Your task to perform on an android device: Open the camera Image 0: 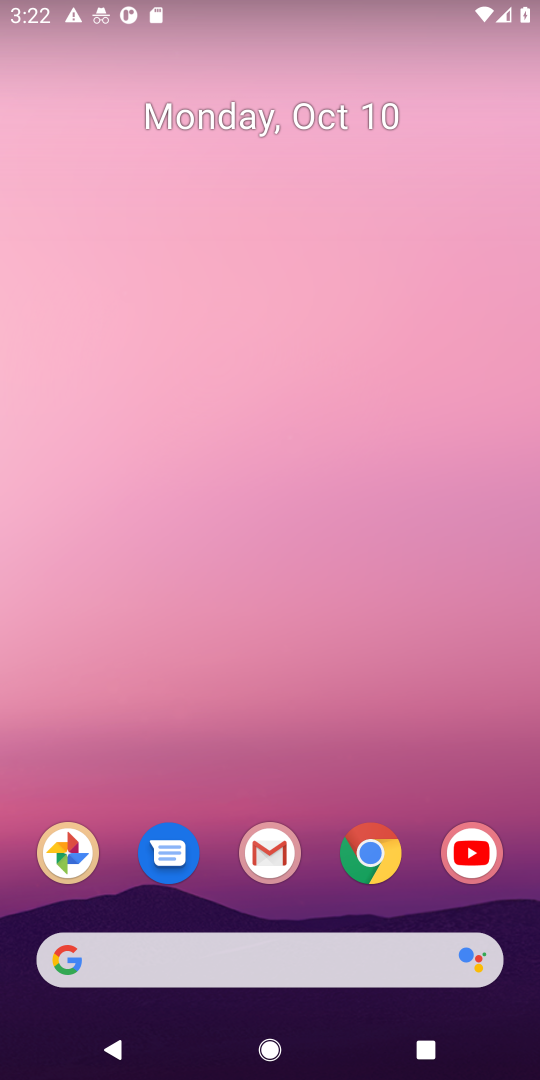
Step 0: drag from (274, 897) to (361, 153)
Your task to perform on an android device: Open the camera Image 1: 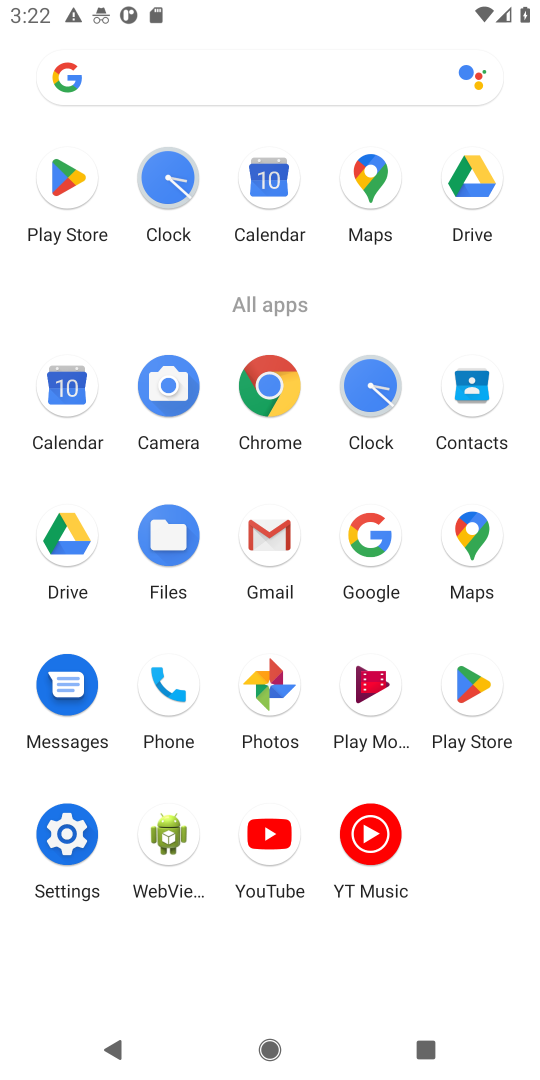
Step 1: click (164, 389)
Your task to perform on an android device: Open the camera Image 2: 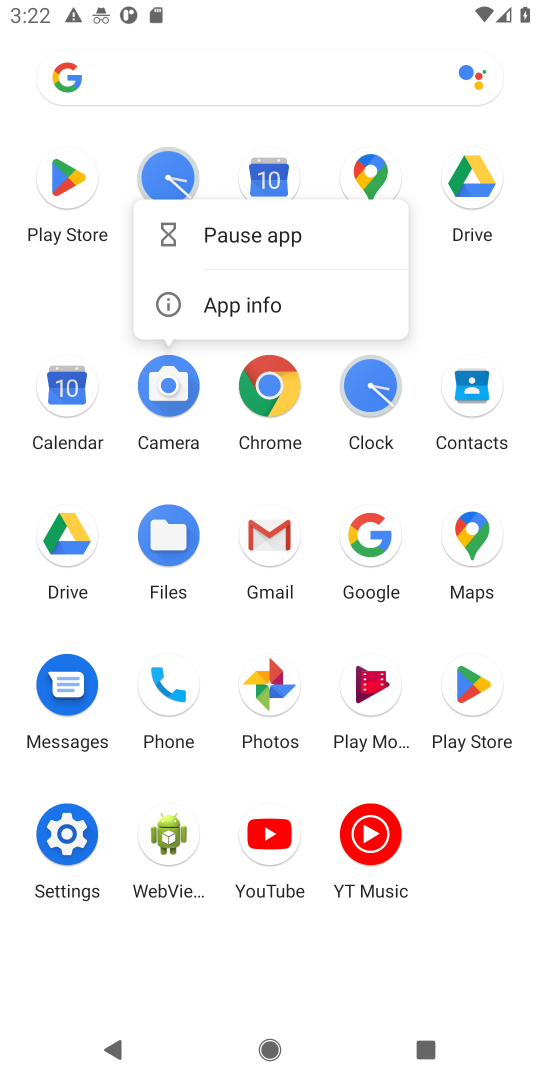
Step 2: click (156, 427)
Your task to perform on an android device: Open the camera Image 3: 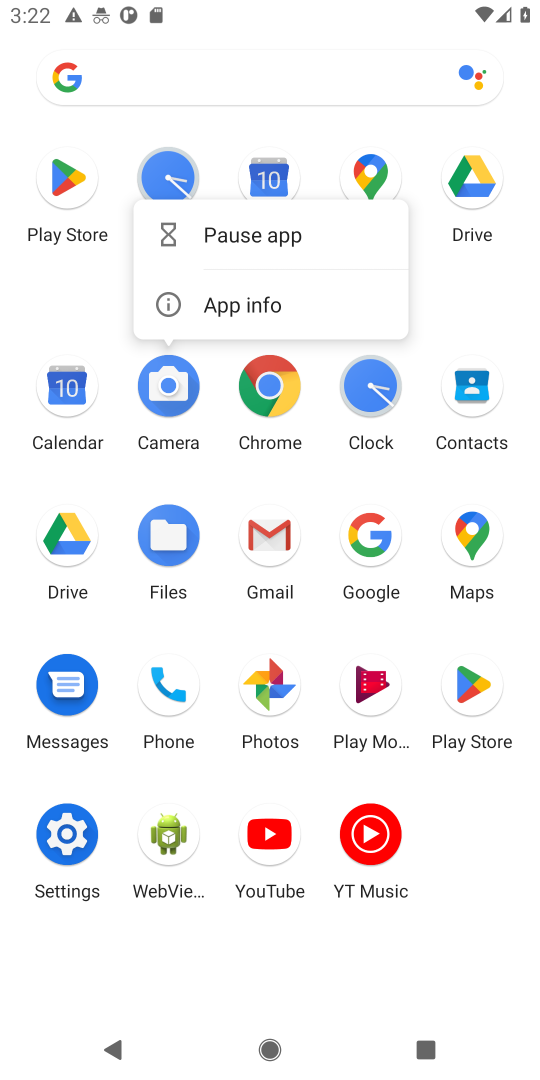
Step 3: click (162, 408)
Your task to perform on an android device: Open the camera Image 4: 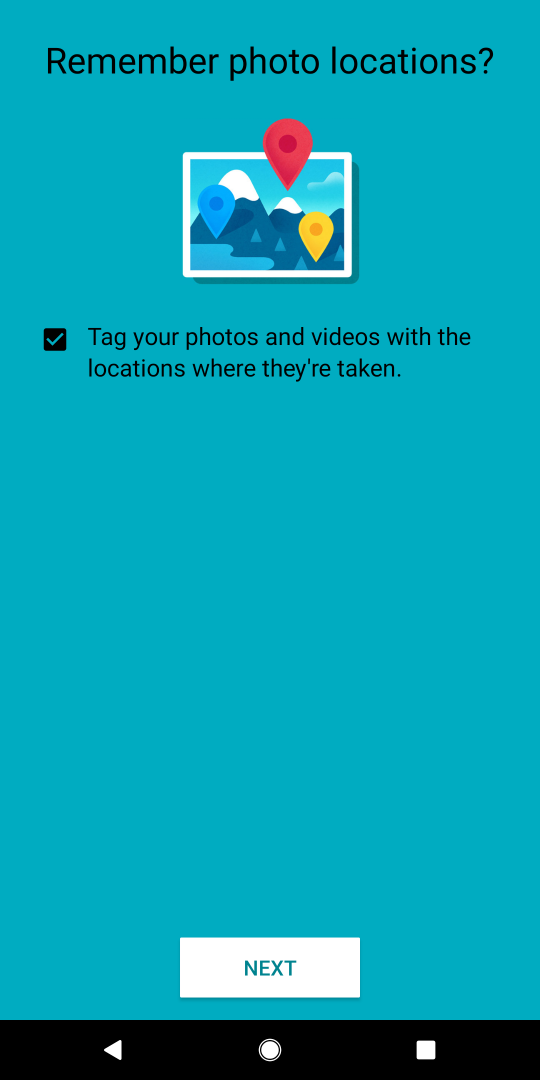
Step 4: click (272, 974)
Your task to perform on an android device: Open the camera Image 5: 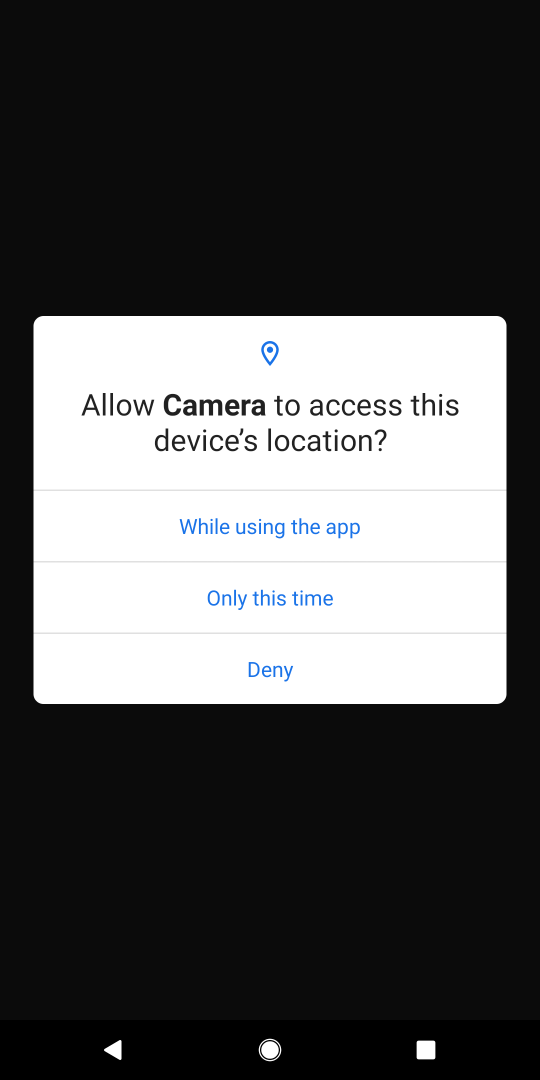
Step 5: click (239, 545)
Your task to perform on an android device: Open the camera Image 6: 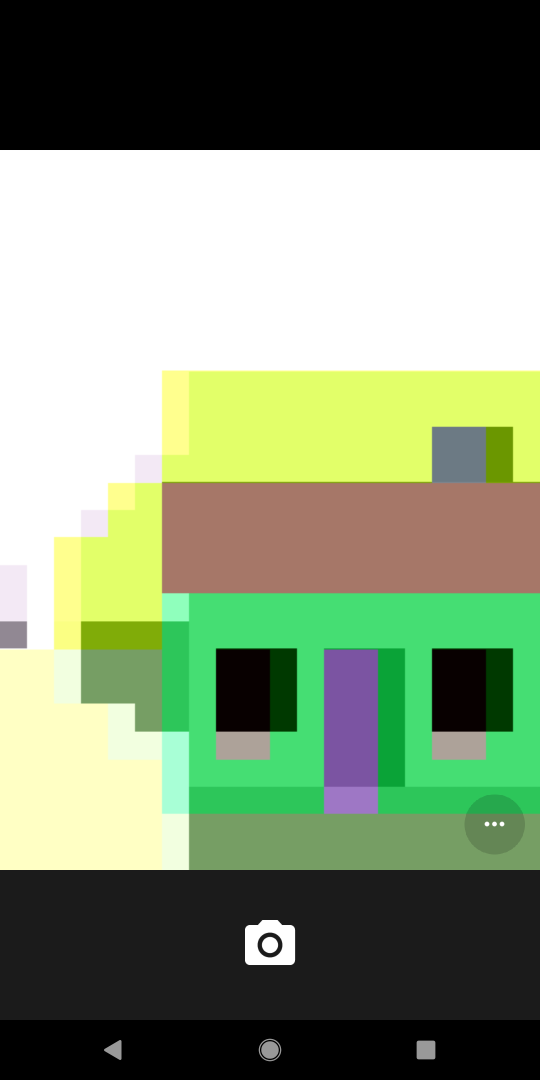
Step 6: click (520, 837)
Your task to perform on an android device: Open the camera Image 7: 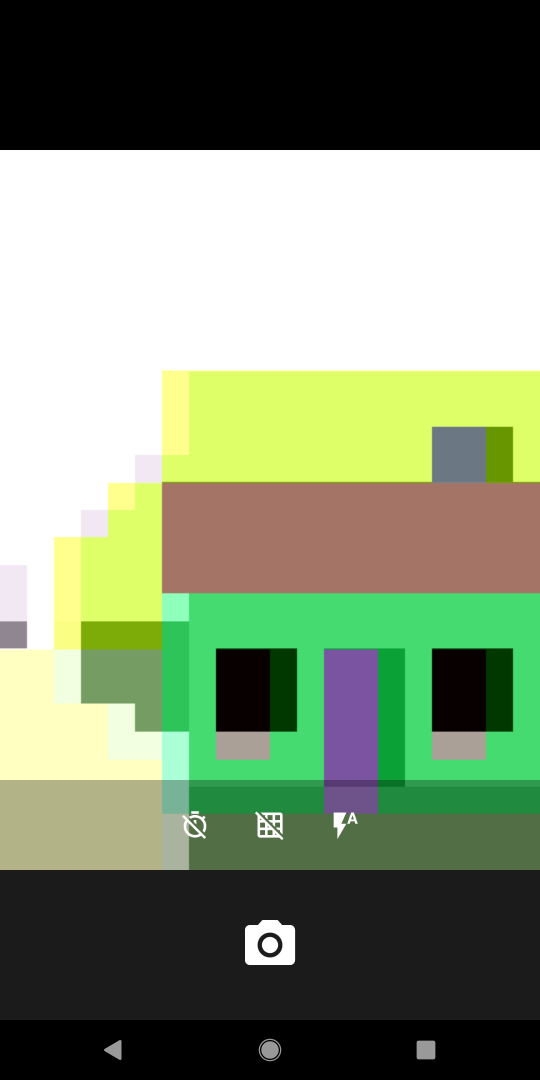
Step 7: click (246, 816)
Your task to perform on an android device: Open the camera Image 8: 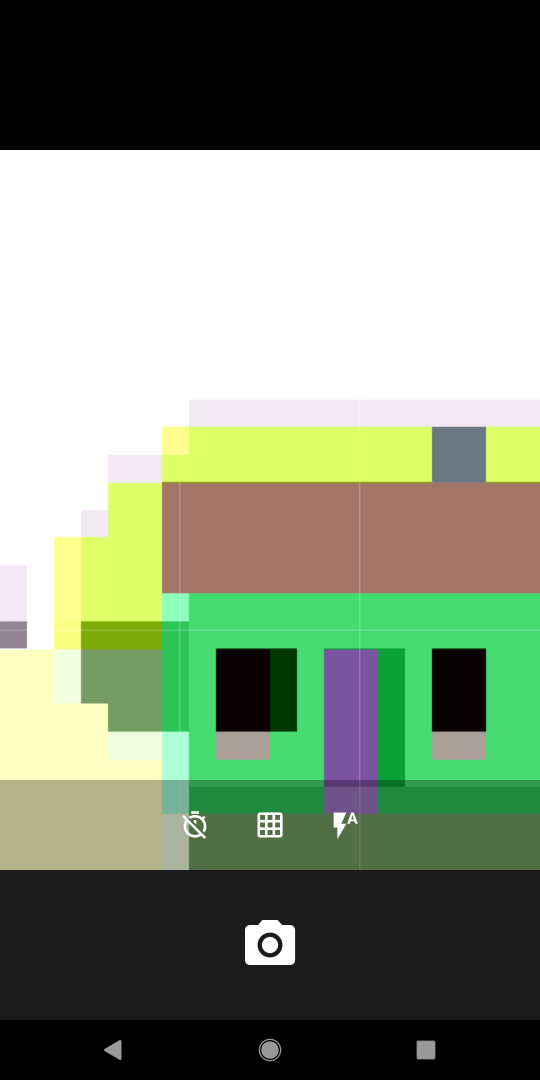
Step 8: click (341, 811)
Your task to perform on an android device: Open the camera Image 9: 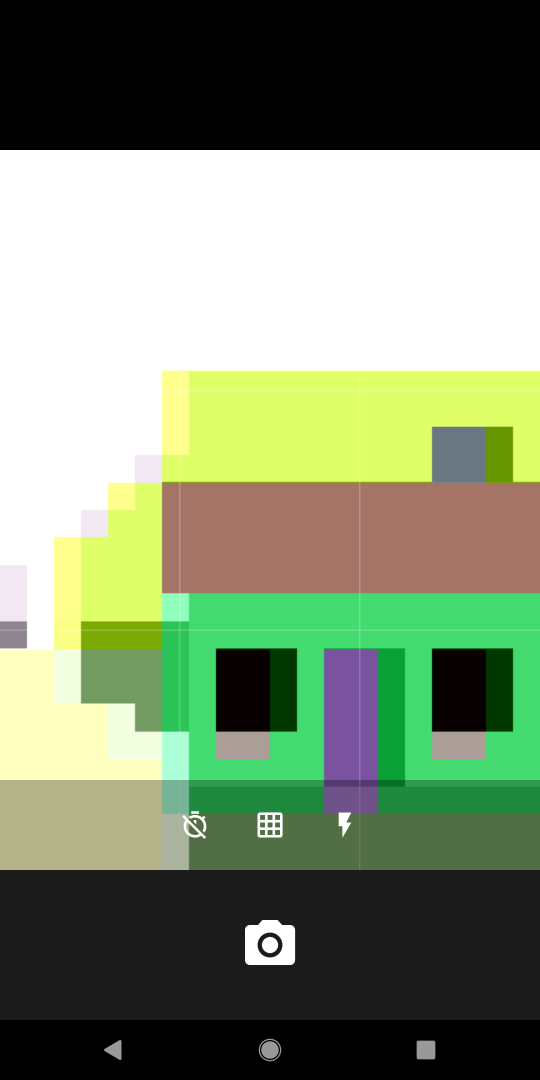
Step 9: drag from (186, 922) to (246, 543)
Your task to perform on an android device: Open the camera Image 10: 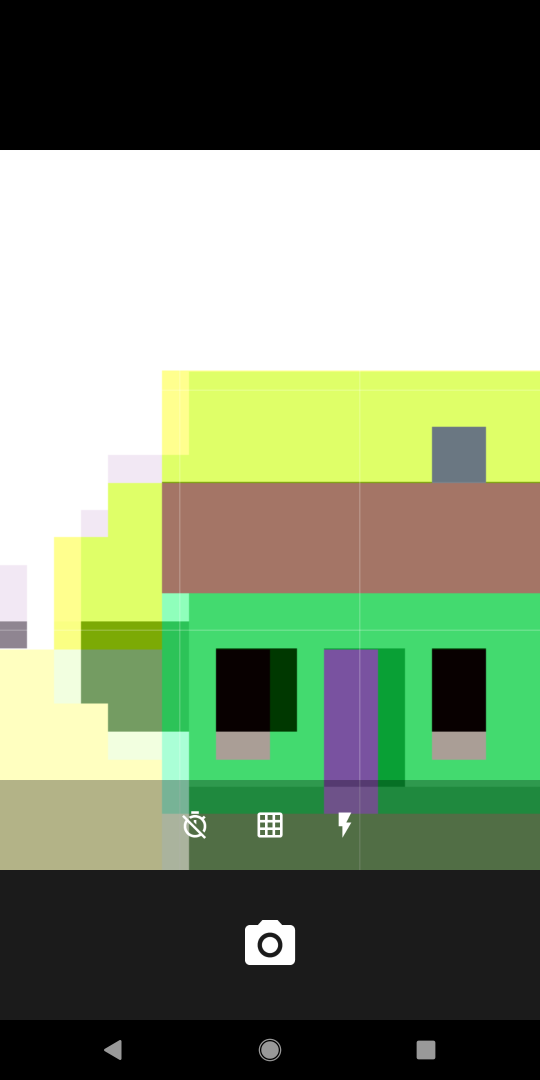
Step 10: drag from (177, 543) to (490, 548)
Your task to perform on an android device: Open the camera Image 11: 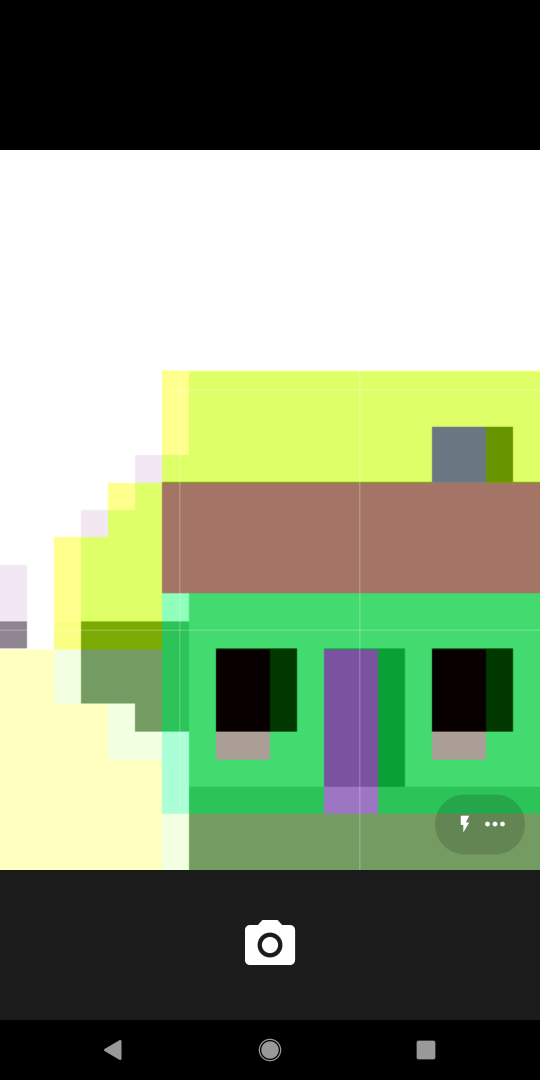
Step 11: drag from (72, 548) to (402, 553)
Your task to perform on an android device: Open the camera Image 12: 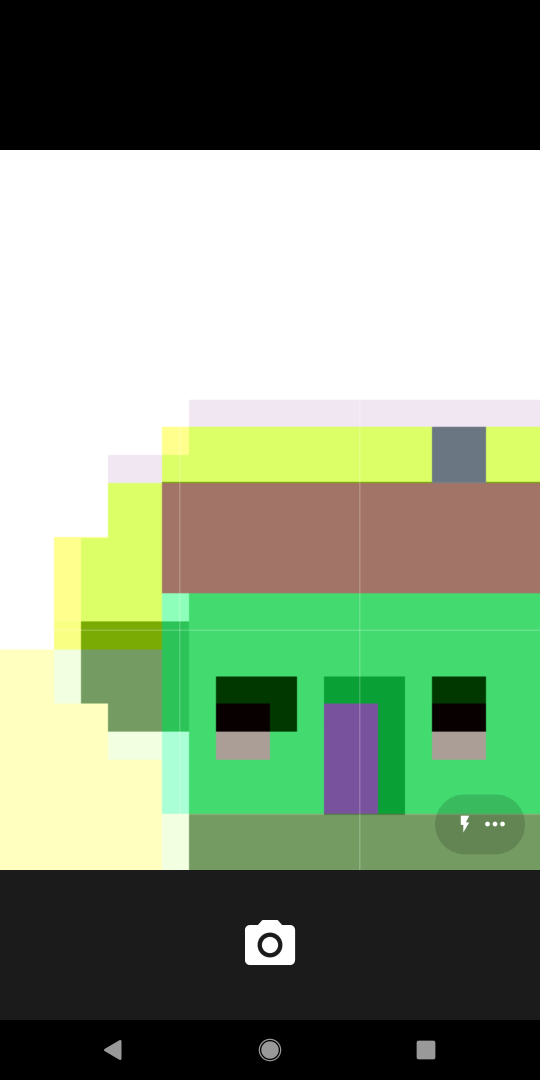
Step 12: click (266, 937)
Your task to perform on an android device: Open the camera Image 13: 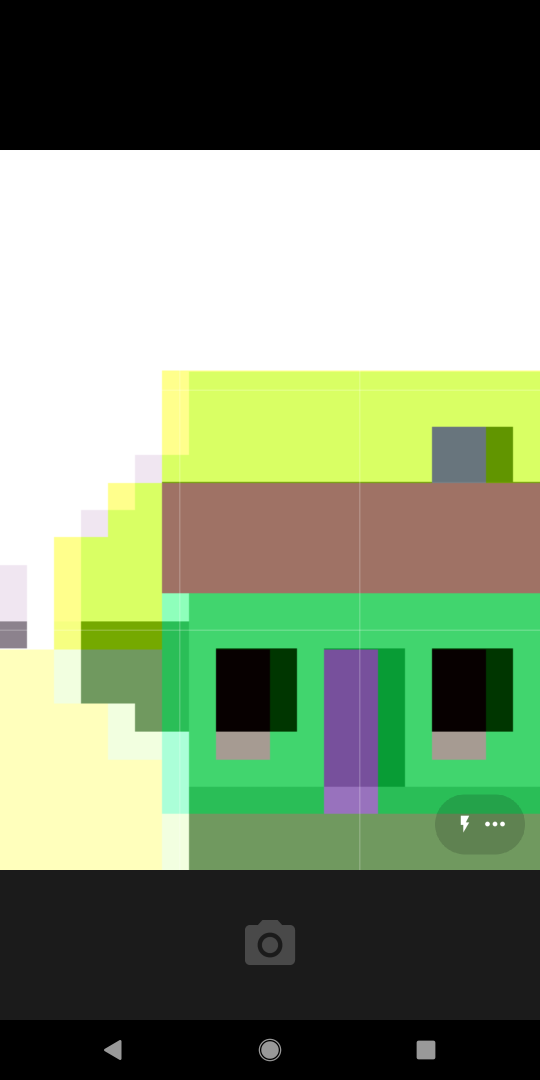
Step 13: drag from (365, 923) to (364, 113)
Your task to perform on an android device: Open the camera Image 14: 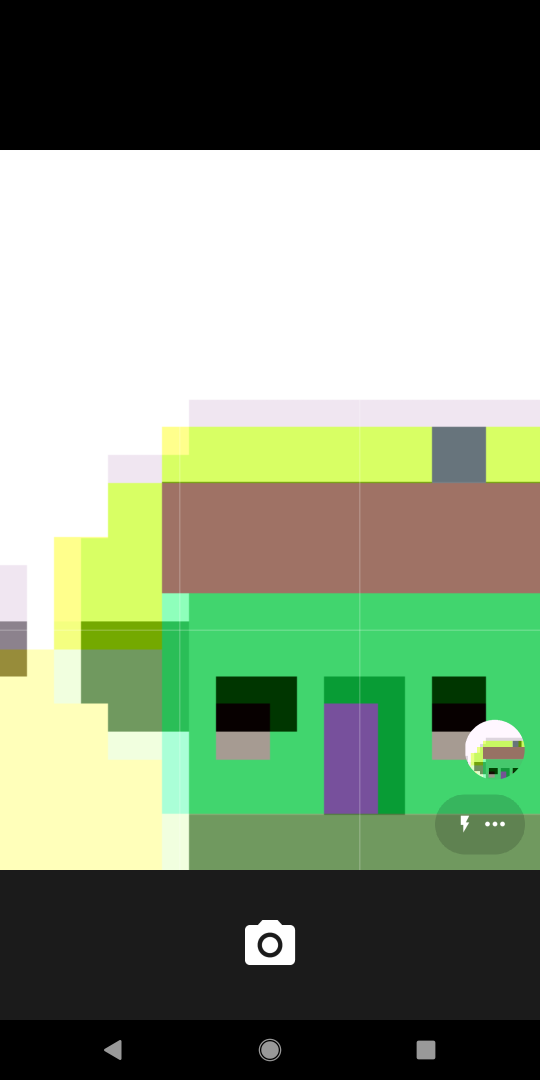
Step 14: drag from (27, 587) to (427, 578)
Your task to perform on an android device: Open the camera Image 15: 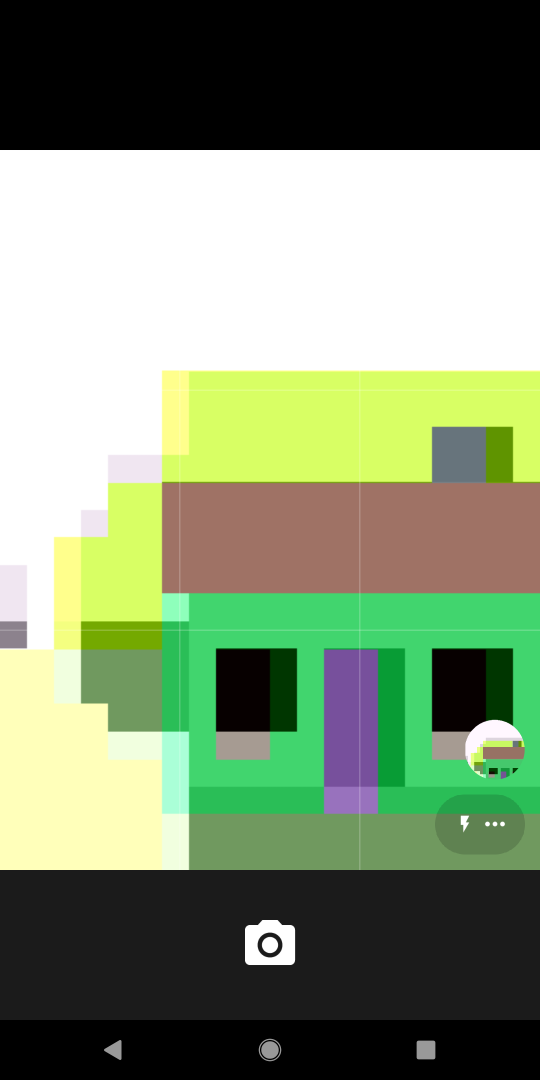
Step 15: drag from (173, 587) to (470, 563)
Your task to perform on an android device: Open the camera Image 16: 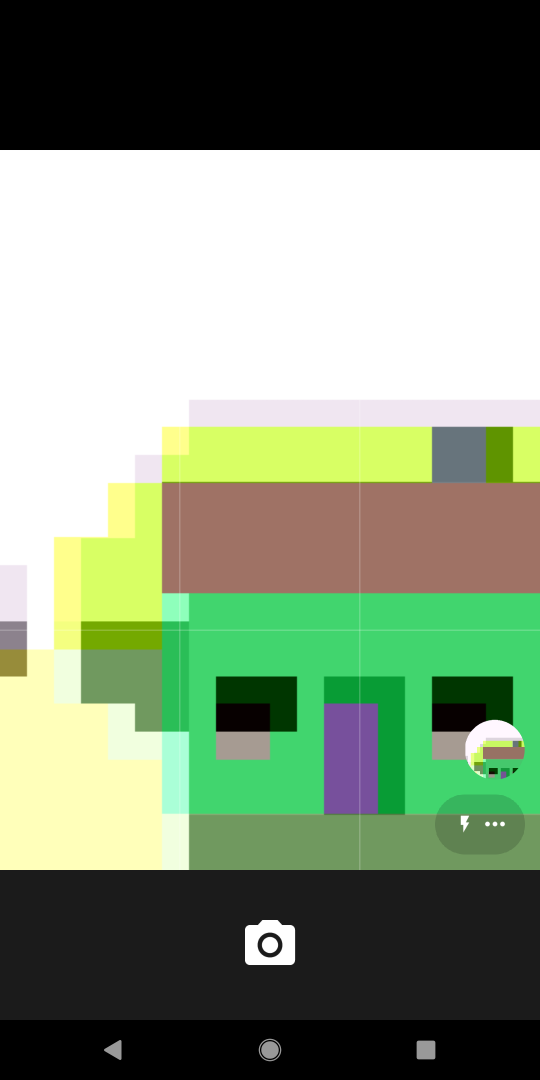
Step 16: click (489, 743)
Your task to perform on an android device: Open the camera Image 17: 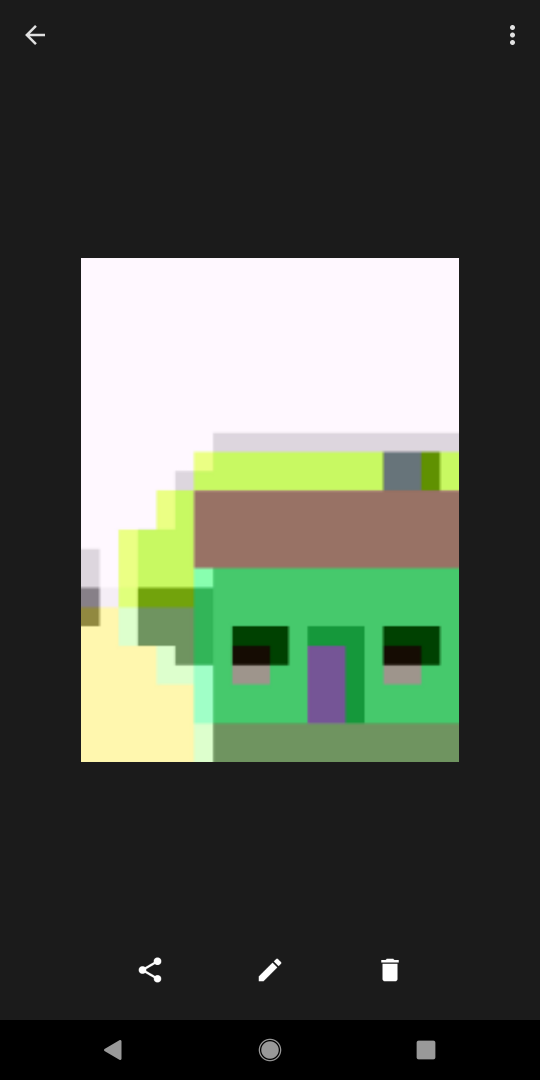
Step 17: drag from (421, 697) to (198, 676)
Your task to perform on an android device: Open the camera Image 18: 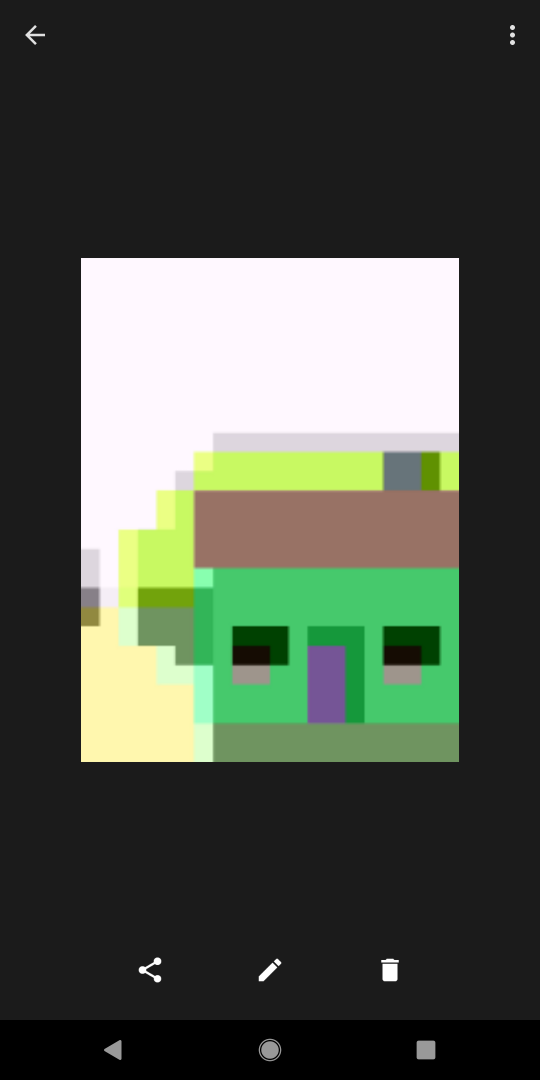
Step 18: click (384, 976)
Your task to perform on an android device: Open the camera Image 19: 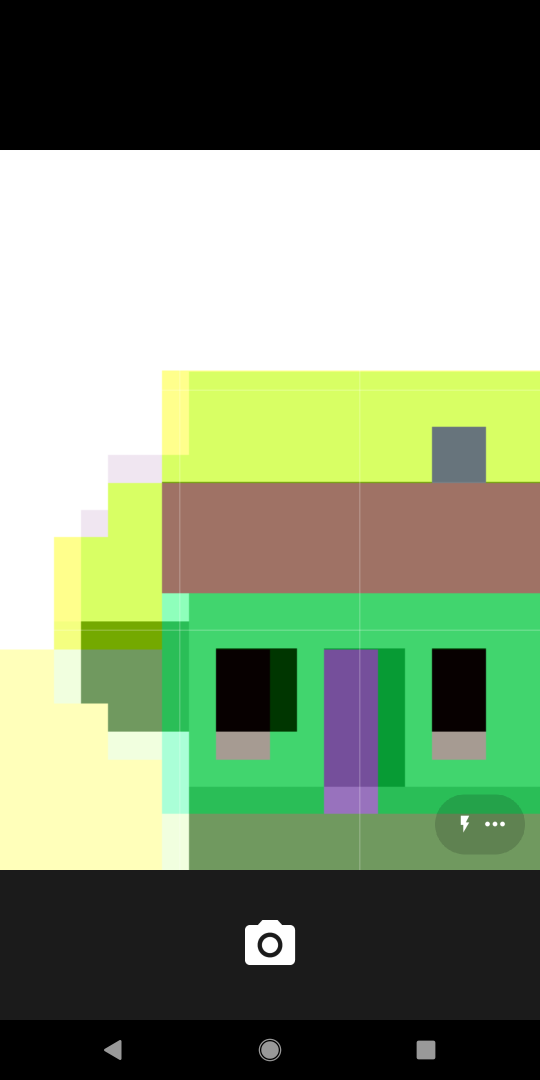
Step 19: drag from (379, 597) to (384, 370)
Your task to perform on an android device: Open the camera Image 20: 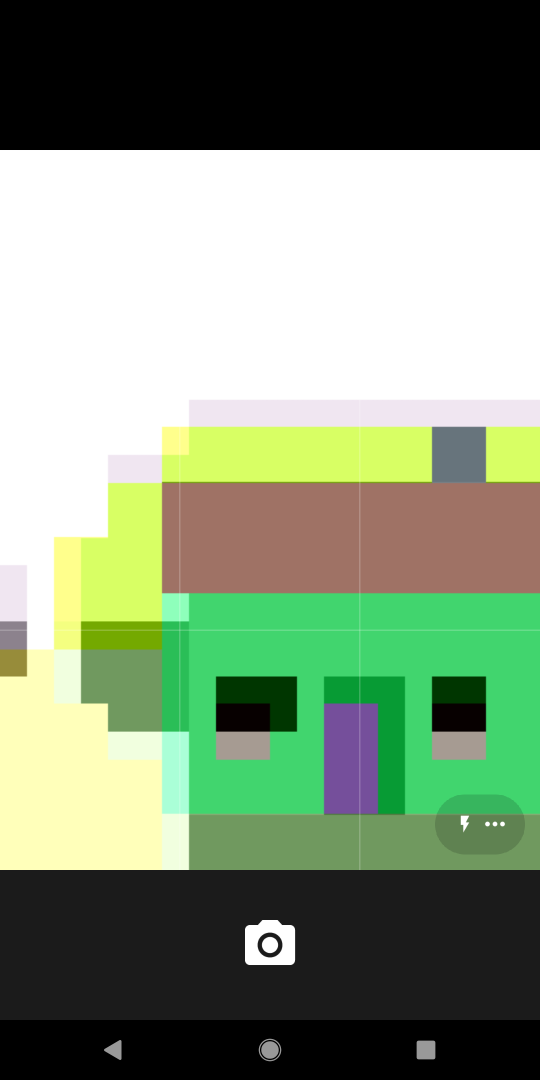
Step 20: drag from (305, 312) to (240, 869)
Your task to perform on an android device: Open the camera Image 21: 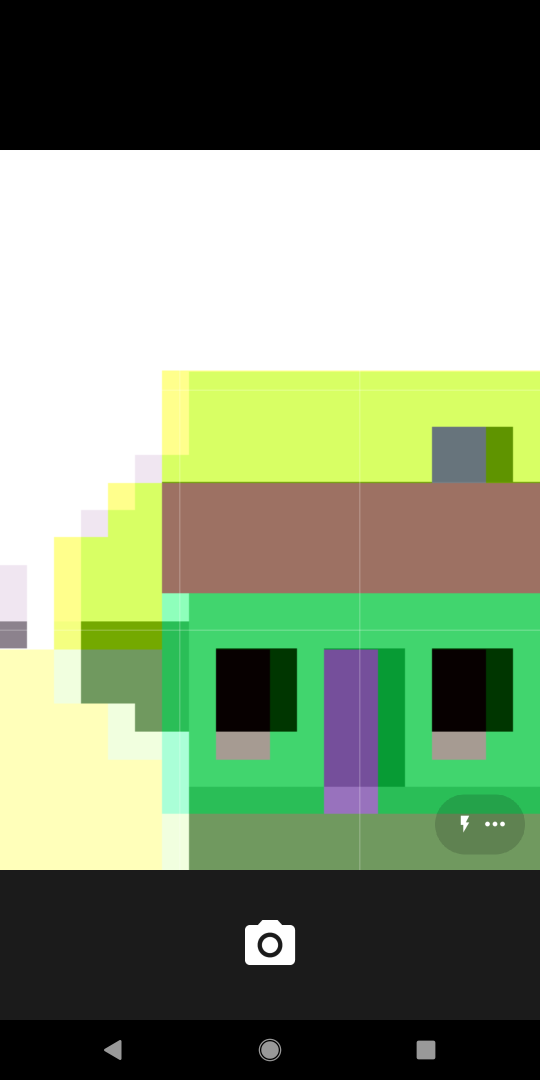
Step 21: click (457, 818)
Your task to perform on an android device: Open the camera Image 22: 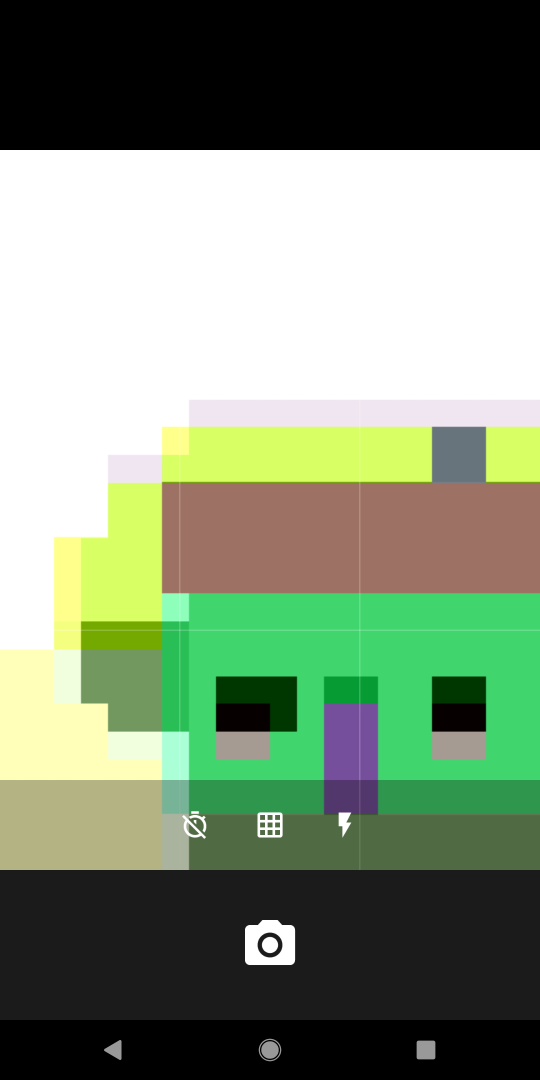
Step 22: click (259, 821)
Your task to perform on an android device: Open the camera Image 23: 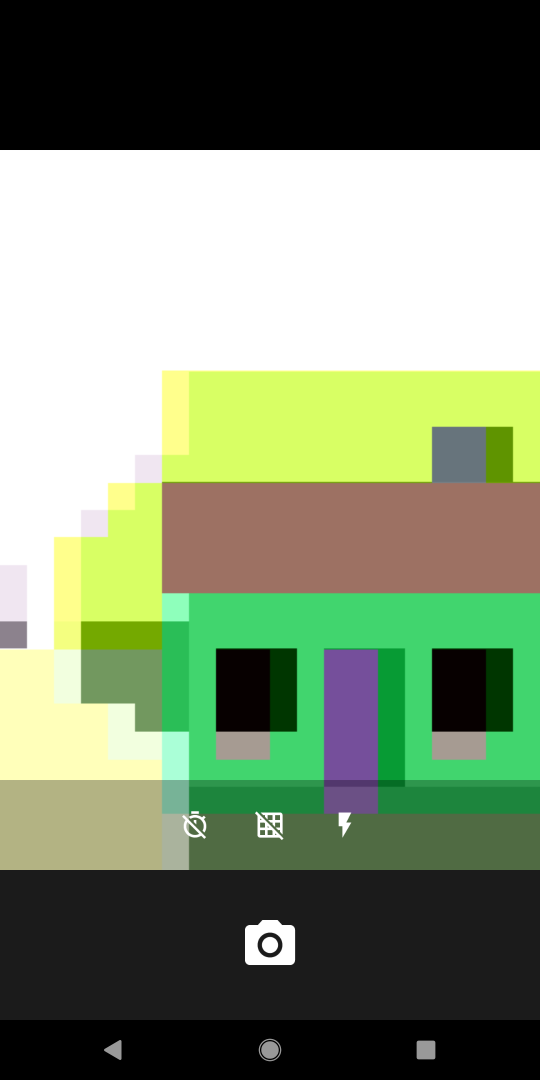
Step 23: click (201, 791)
Your task to perform on an android device: Open the camera Image 24: 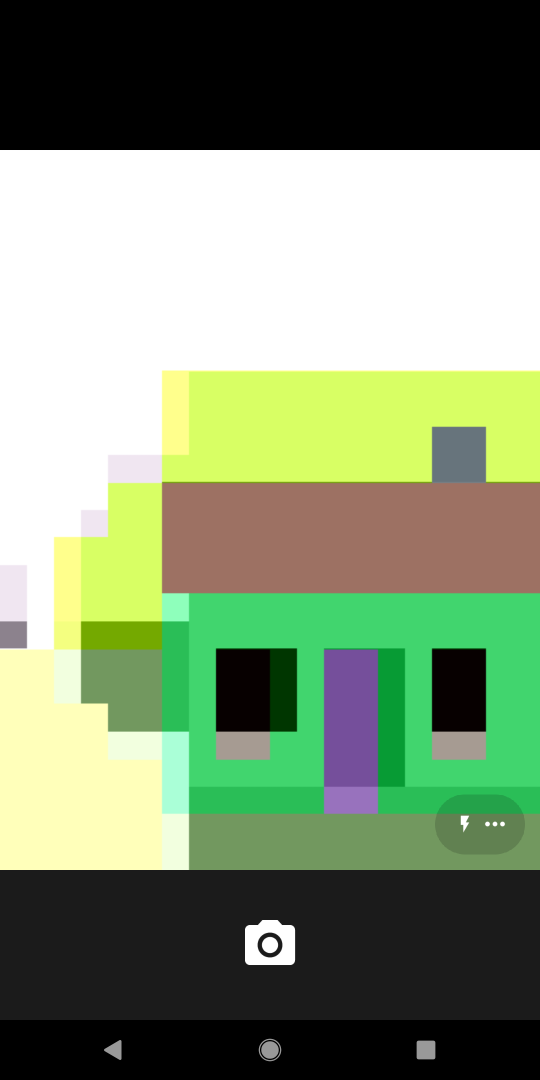
Step 24: drag from (238, 788) to (289, 392)
Your task to perform on an android device: Open the camera Image 25: 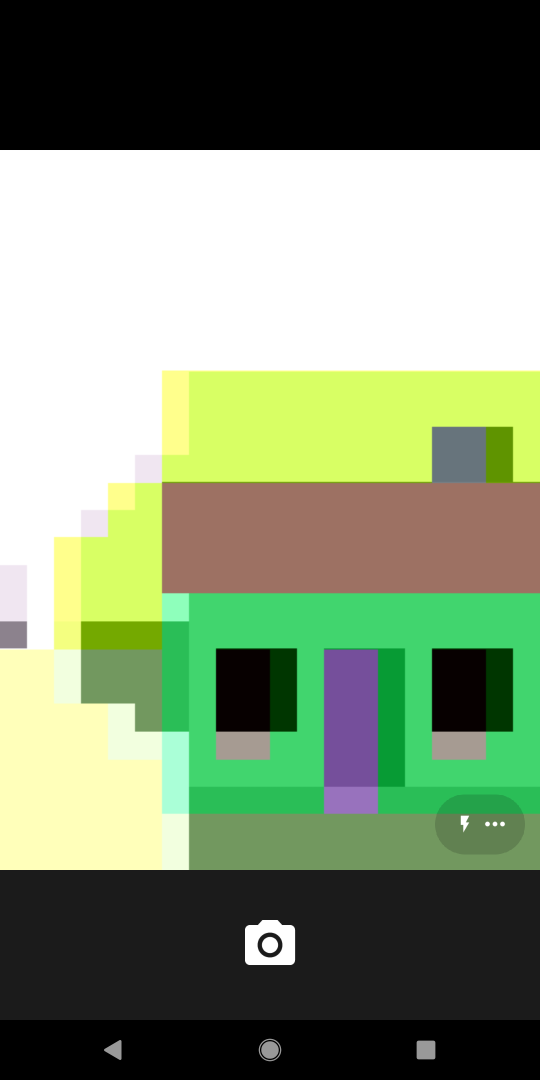
Step 25: click (314, 429)
Your task to perform on an android device: Open the camera Image 26: 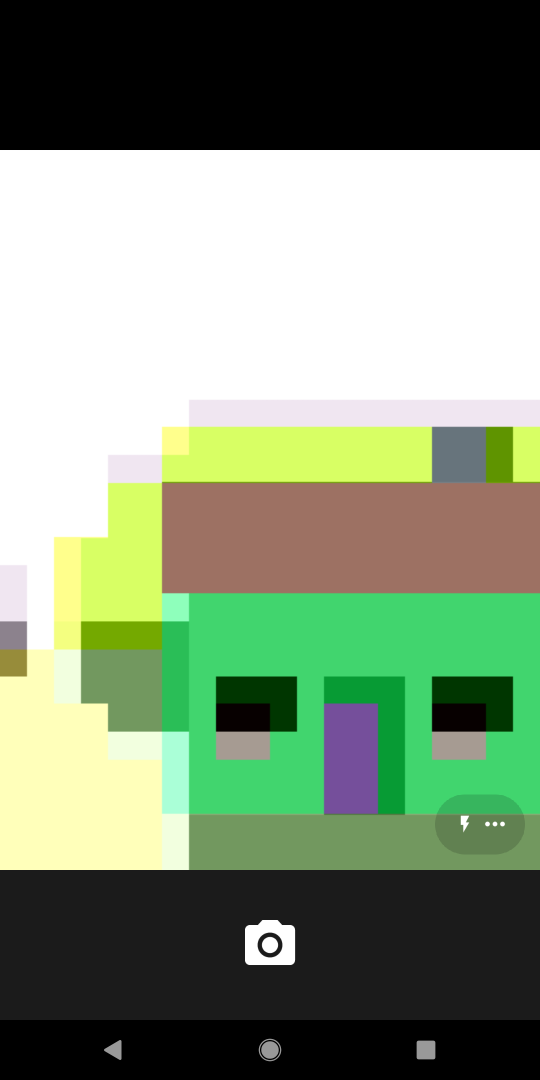
Step 26: drag from (276, 567) to (308, 504)
Your task to perform on an android device: Open the camera Image 27: 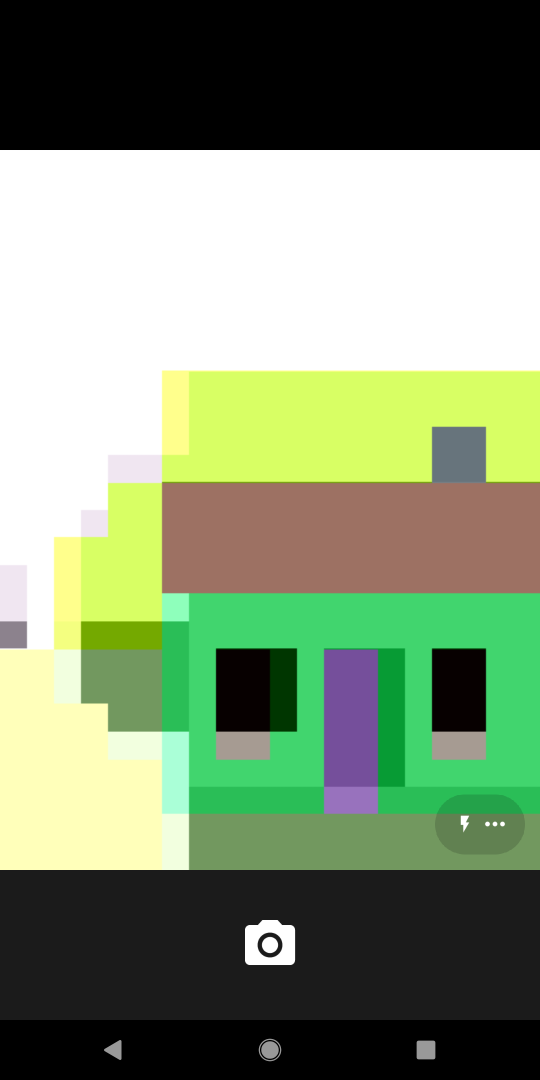
Step 27: drag from (329, 505) to (317, 590)
Your task to perform on an android device: Open the camera Image 28: 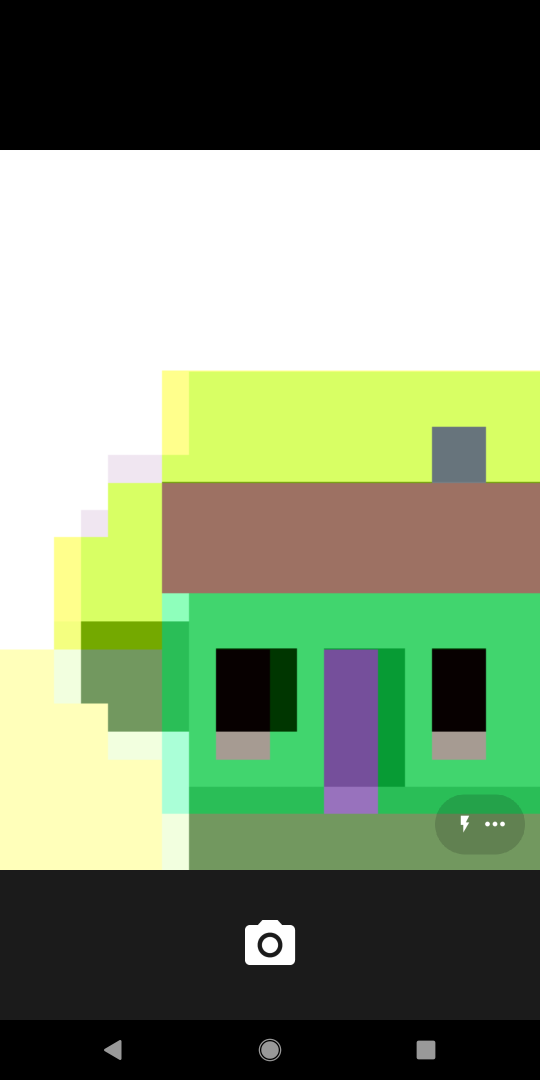
Step 28: click (344, 530)
Your task to perform on an android device: Open the camera Image 29: 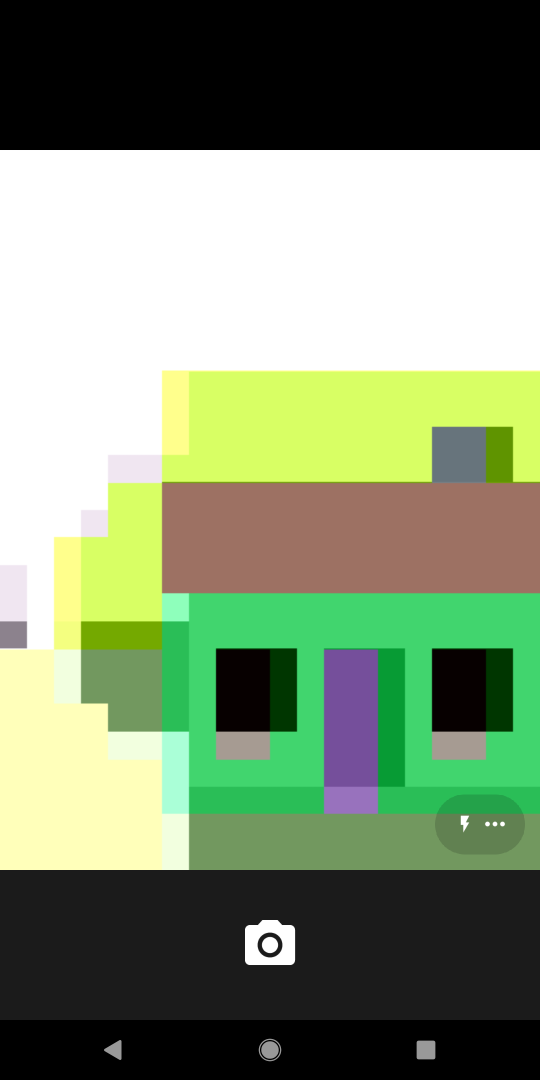
Step 29: click (346, 555)
Your task to perform on an android device: Open the camera Image 30: 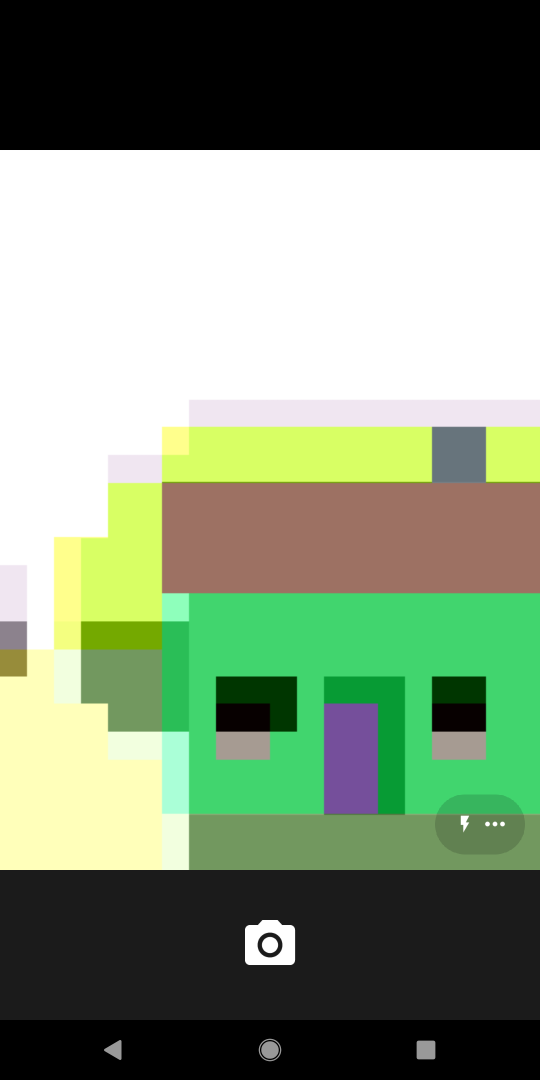
Step 30: drag from (364, 643) to (340, 493)
Your task to perform on an android device: Open the camera Image 31: 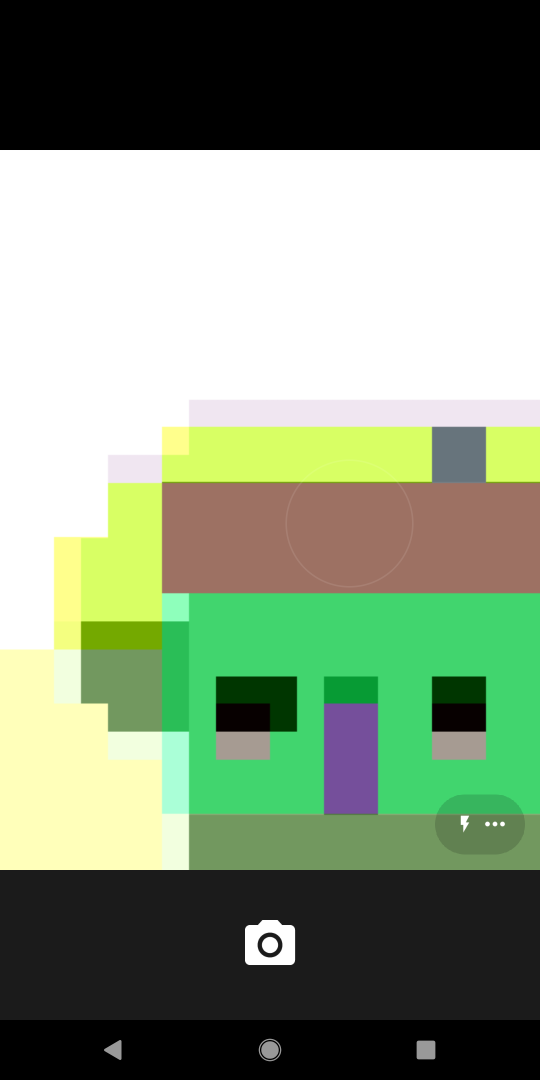
Step 31: click (346, 471)
Your task to perform on an android device: Open the camera Image 32: 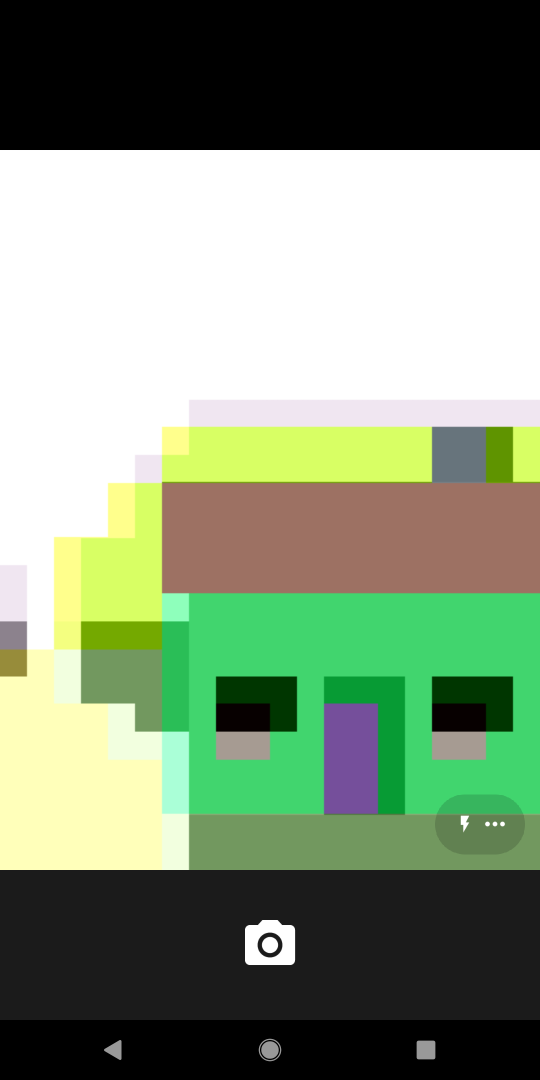
Step 32: drag from (256, 595) to (268, 866)
Your task to perform on an android device: Open the camera Image 33: 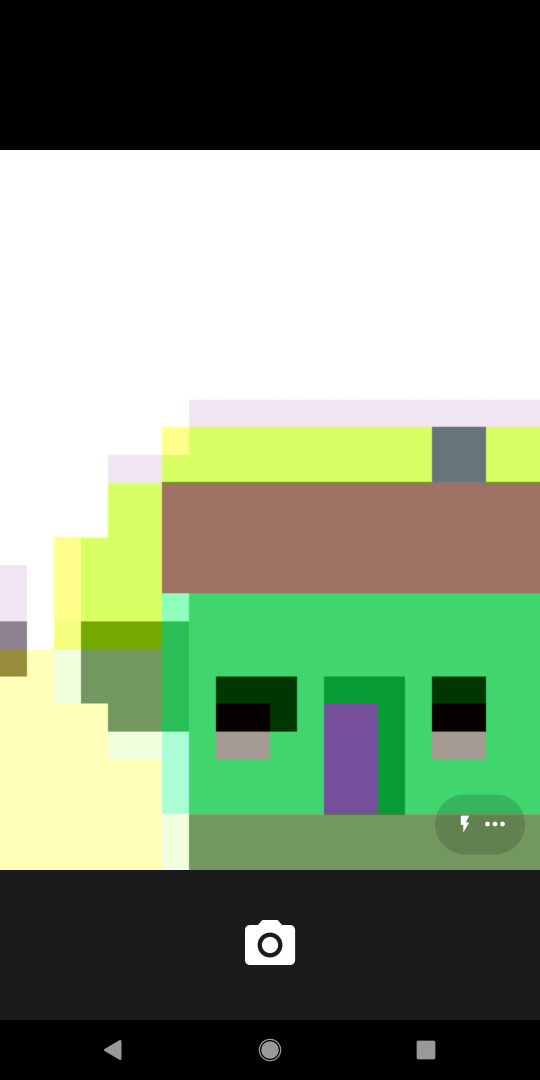
Step 33: click (472, 813)
Your task to perform on an android device: Open the camera Image 34: 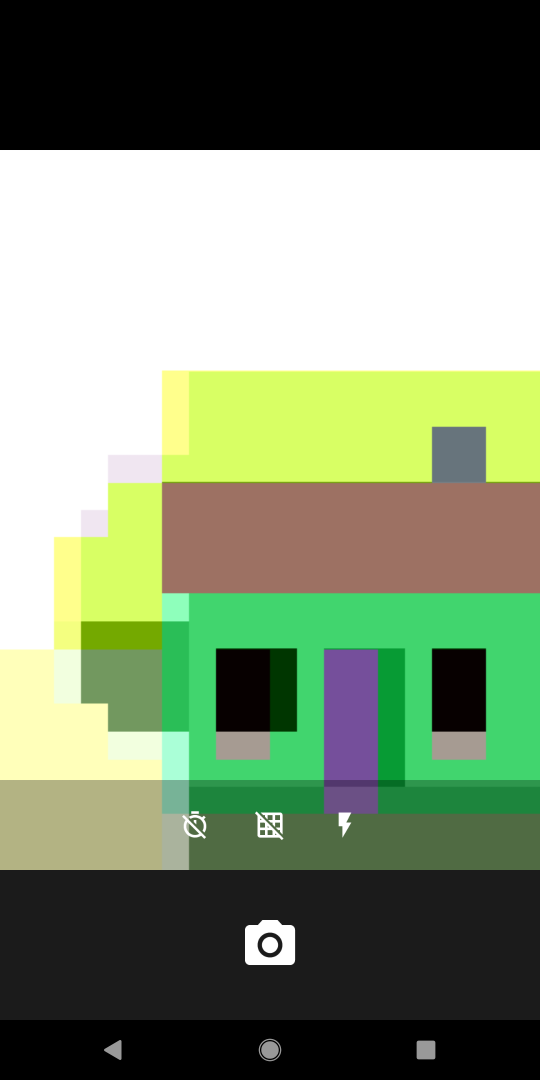
Step 34: click (456, 824)
Your task to perform on an android device: Open the camera Image 35: 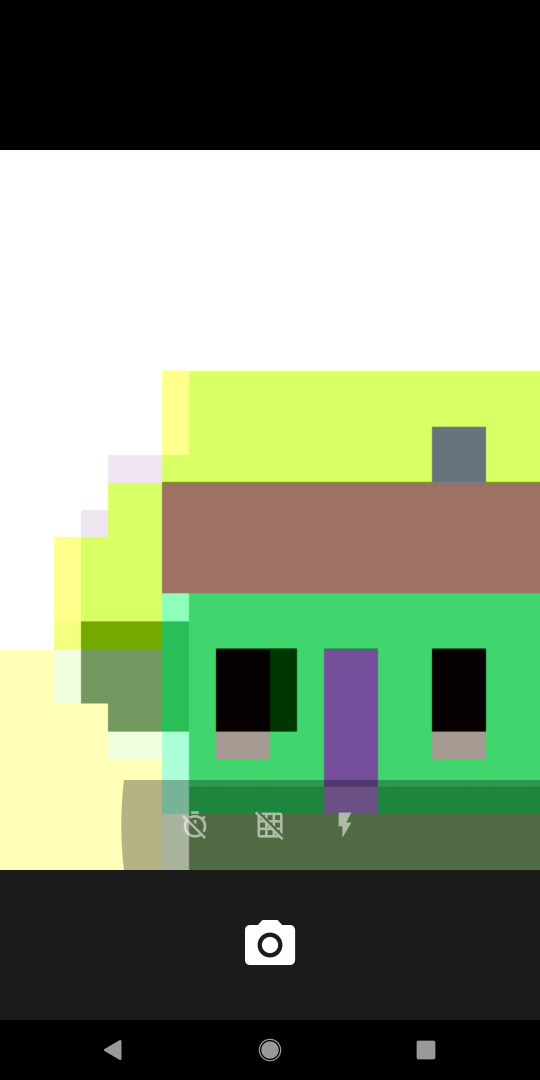
Step 35: click (371, 830)
Your task to perform on an android device: Open the camera Image 36: 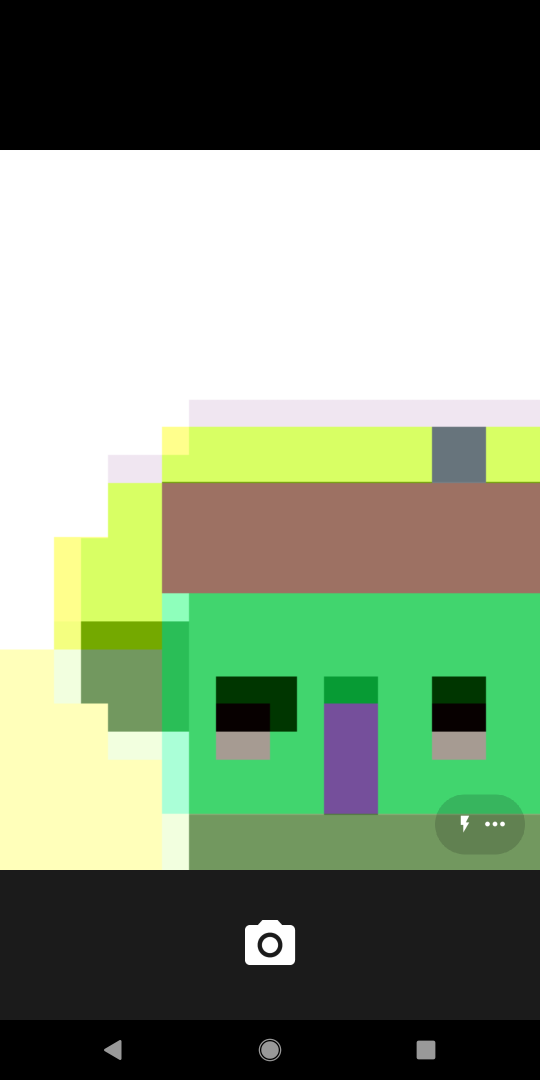
Step 36: click (520, 827)
Your task to perform on an android device: Open the camera Image 37: 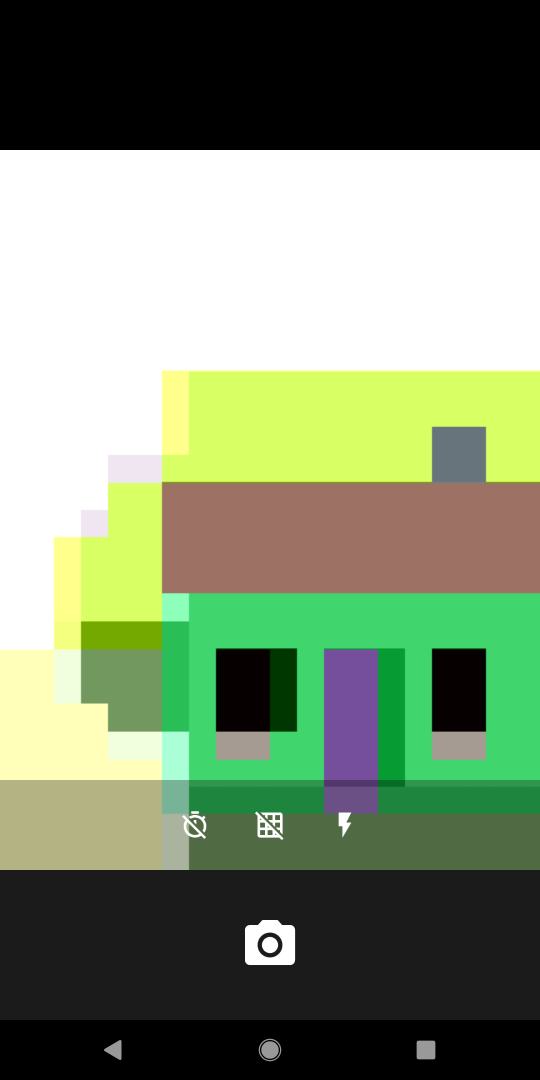
Step 37: click (188, 827)
Your task to perform on an android device: Open the camera Image 38: 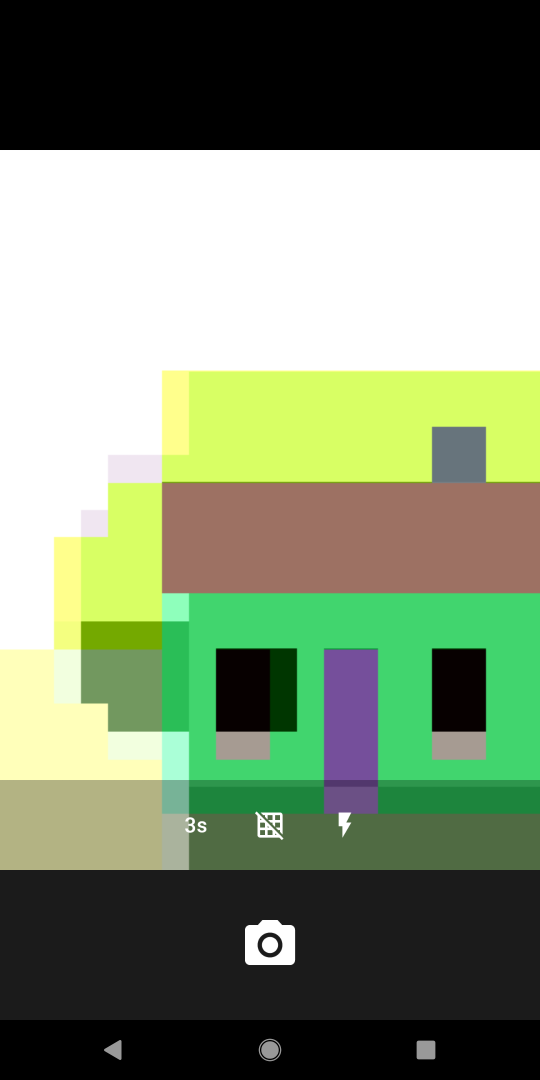
Step 38: click (188, 827)
Your task to perform on an android device: Open the camera Image 39: 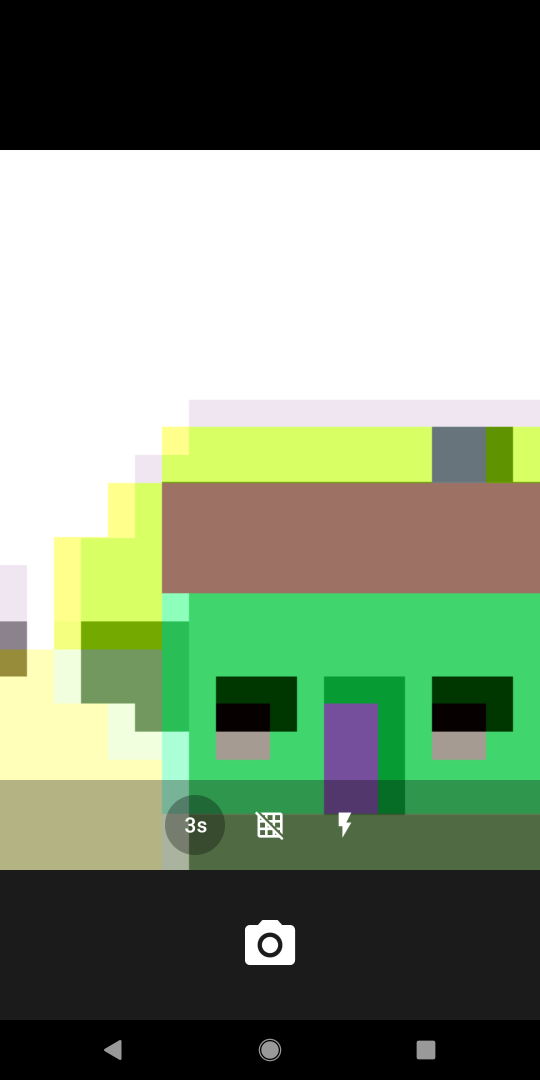
Step 39: click (188, 827)
Your task to perform on an android device: Open the camera Image 40: 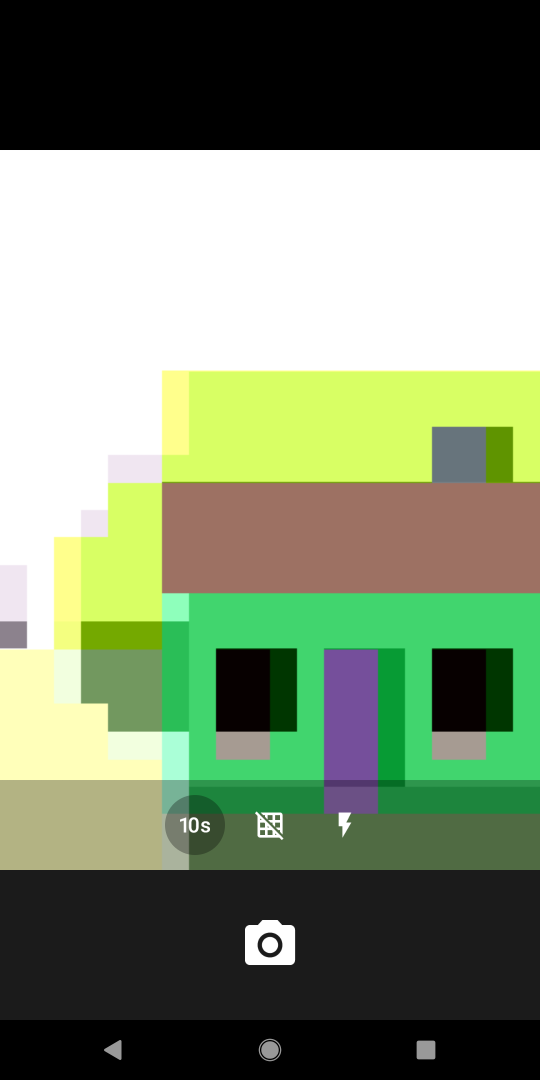
Step 40: click (203, 842)
Your task to perform on an android device: Open the camera Image 41: 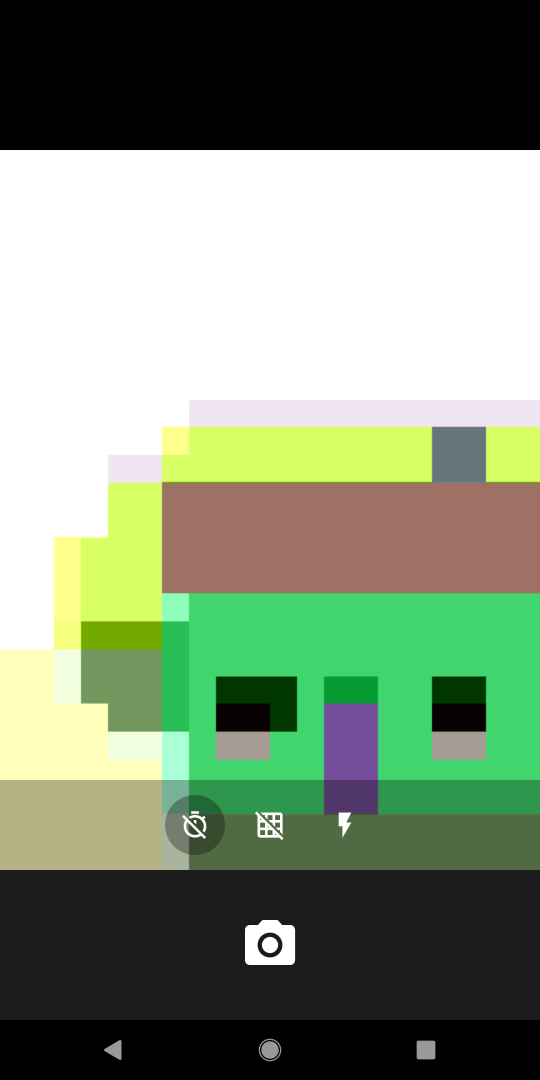
Step 41: click (203, 842)
Your task to perform on an android device: Open the camera Image 42: 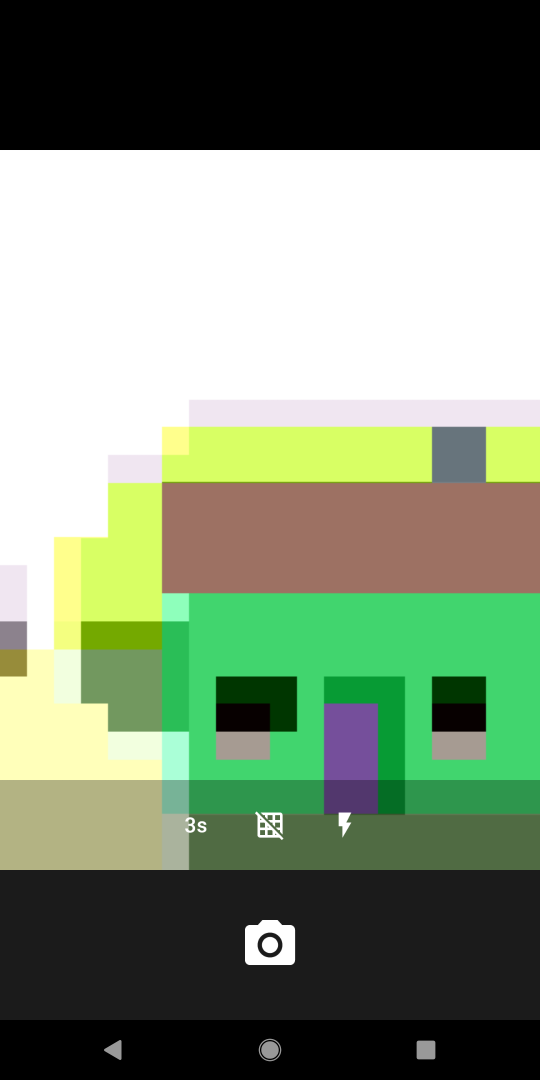
Step 42: click (203, 842)
Your task to perform on an android device: Open the camera Image 43: 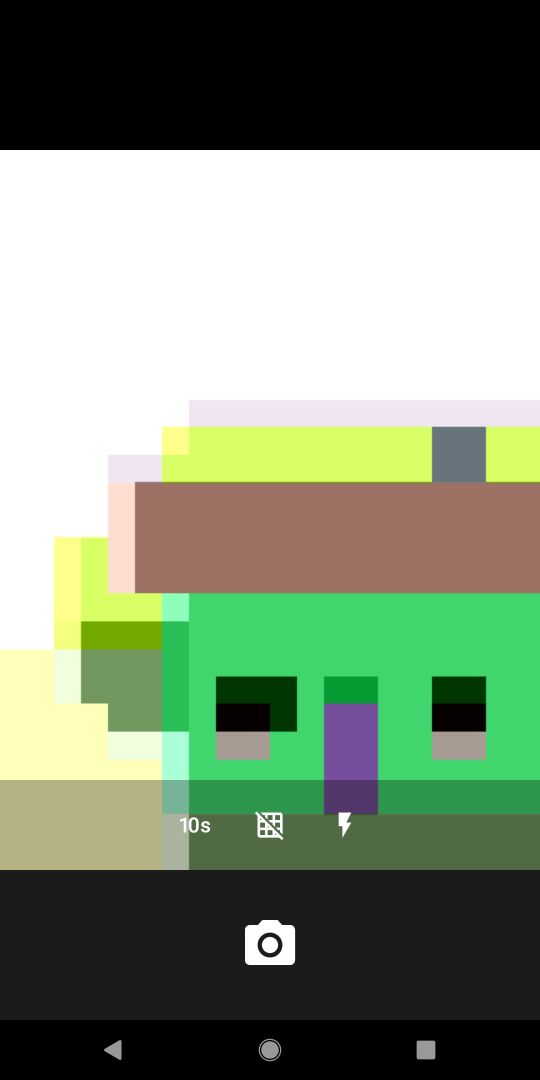
Step 43: click (203, 842)
Your task to perform on an android device: Open the camera Image 44: 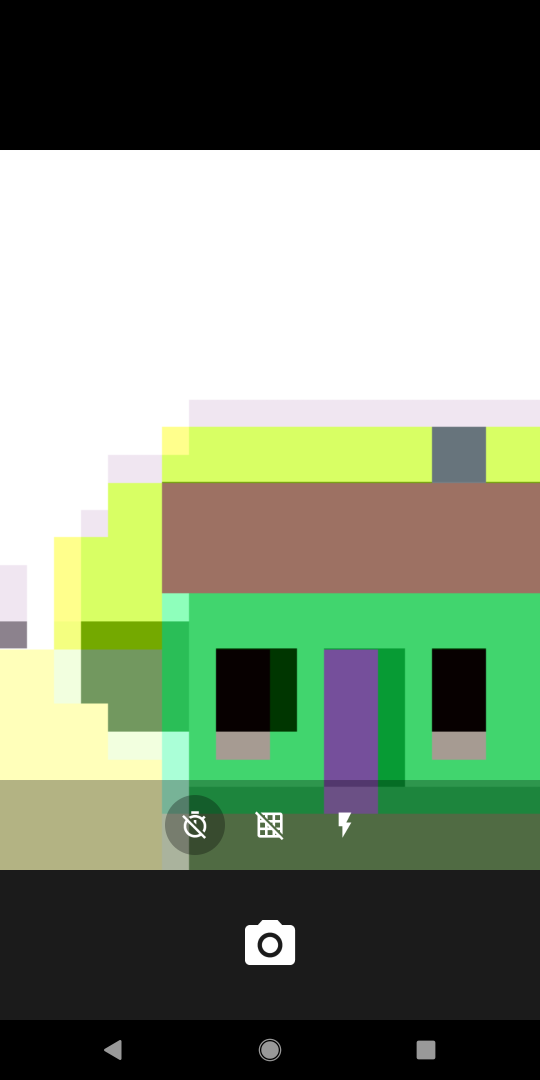
Step 44: click (203, 842)
Your task to perform on an android device: Open the camera Image 45: 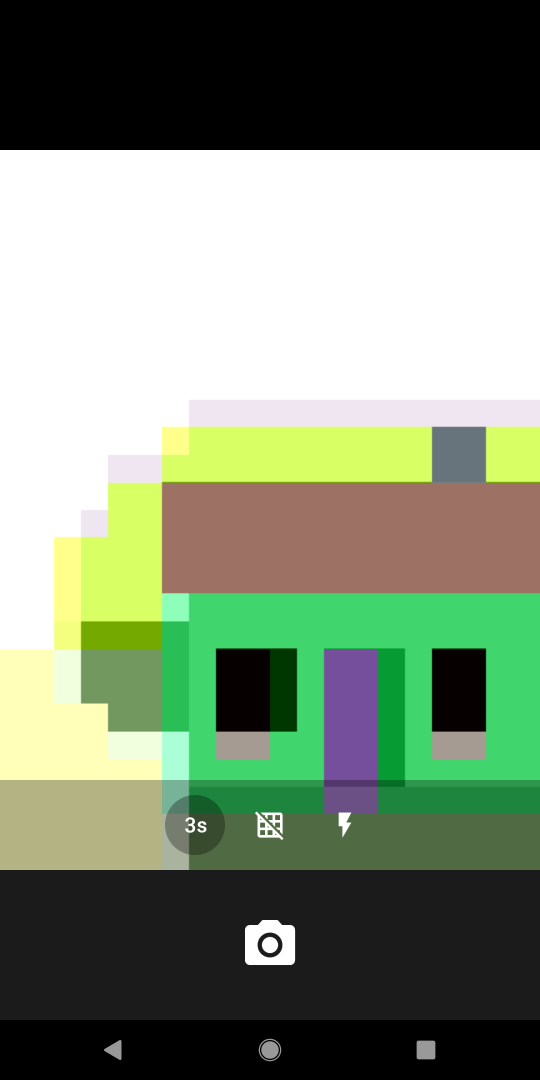
Step 45: click (203, 842)
Your task to perform on an android device: Open the camera Image 46: 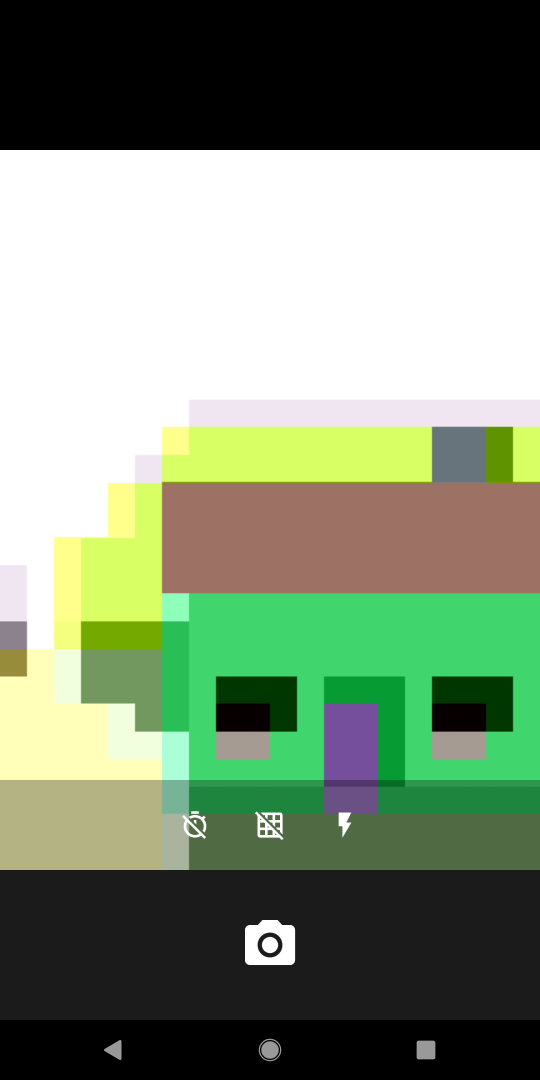
Step 46: task complete